Your task to perform on an android device: open the mobile data screen to see how much data has been used Image 0: 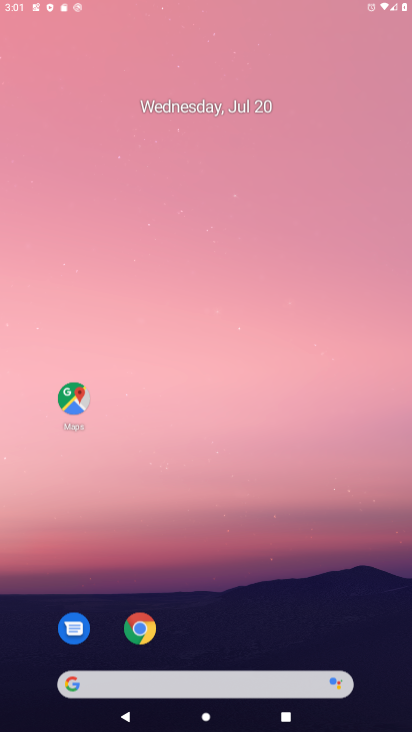
Step 0: press home button
Your task to perform on an android device: open the mobile data screen to see how much data has been used Image 1: 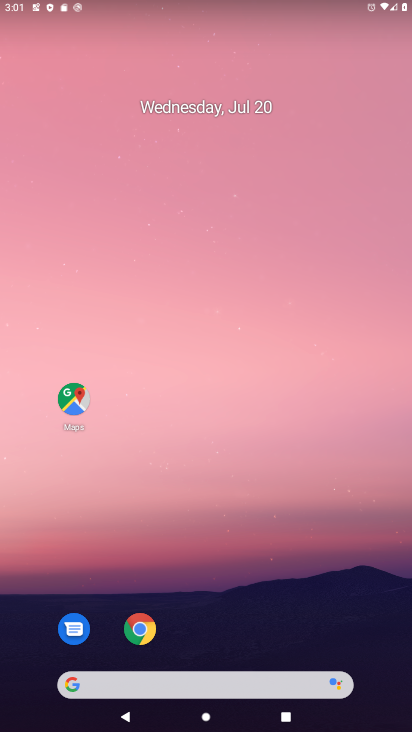
Step 1: drag from (210, 331) to (197, 66)
Your task to perform on an android device: open the mobile data screen to see how much data has been used Image 2: 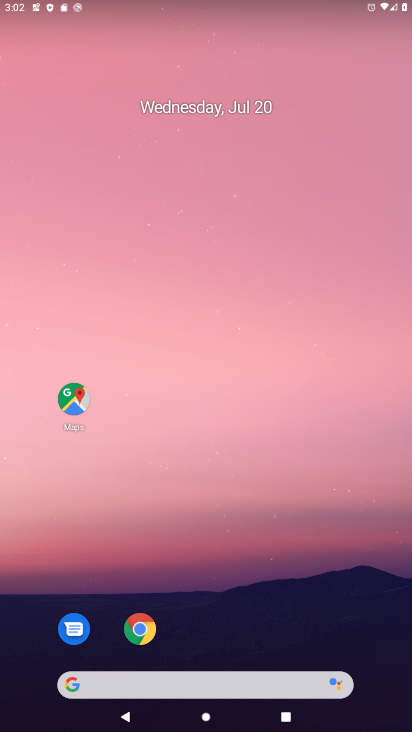
Step 2: drag from (235, 643) to (264, 52)
Your task to perform on an android device: open the mobile data screen to see how much data has been used Image 3: 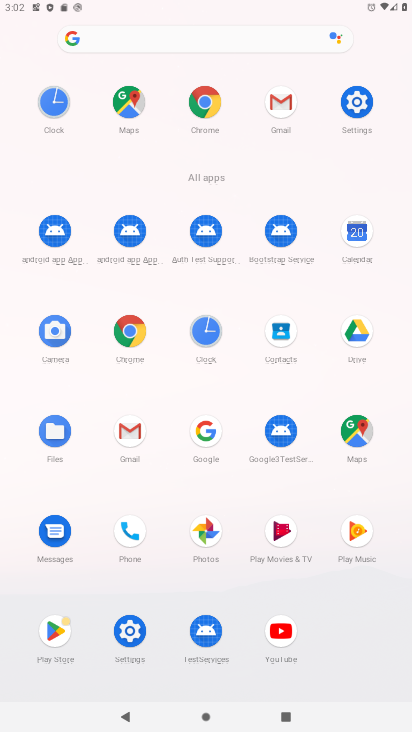
Step 3: click (354, 97)
Your task to perform on an android device: open the mobile data screen to see how much data has been used Image 4: 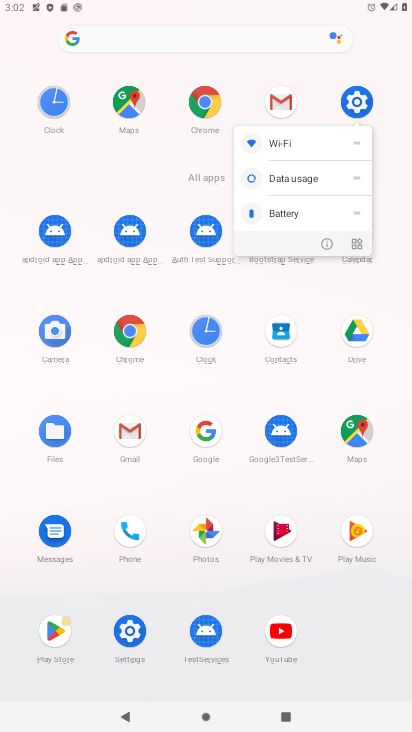
Step 4: click (360, 97)
Your task to perform on an android device: open the mobile data screen to see how much data has been used Image 5: 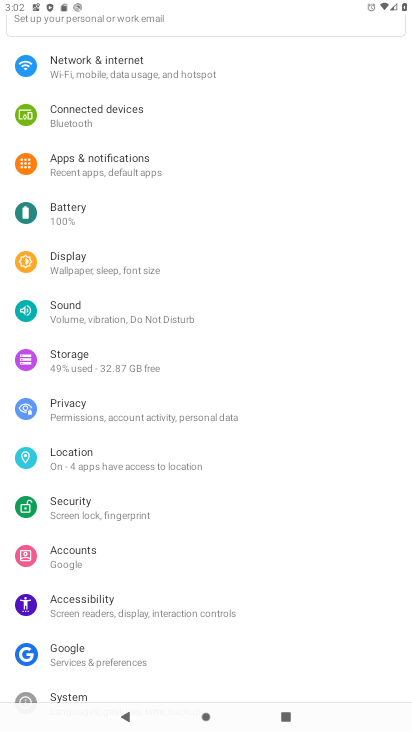
Step 5: click (144, 69)
Your task to perform on an android device: open the mobile data screen to see how much data has been used Image 6: 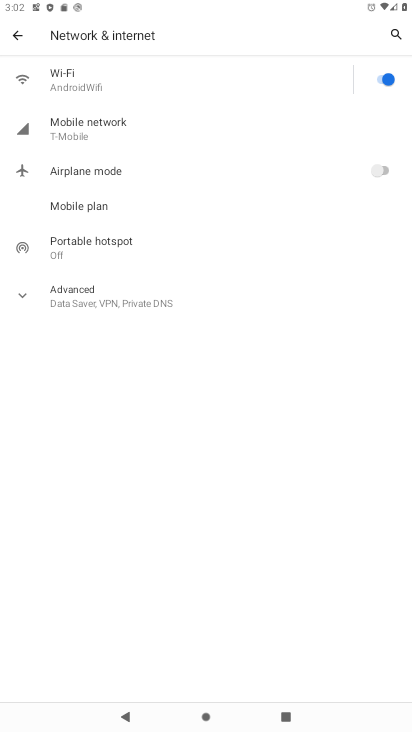
Step 6: click (101, 129)
Your task to perform on an android device: open the mobile data screen to see how much data has been used Image 7: 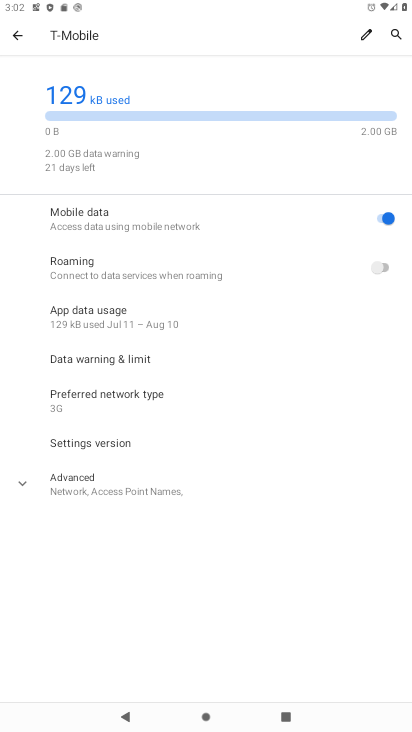
Step 7: click (113, 302)
Your task to perform on an android device: open the mobile data screen to see how much data has been used Image 8: 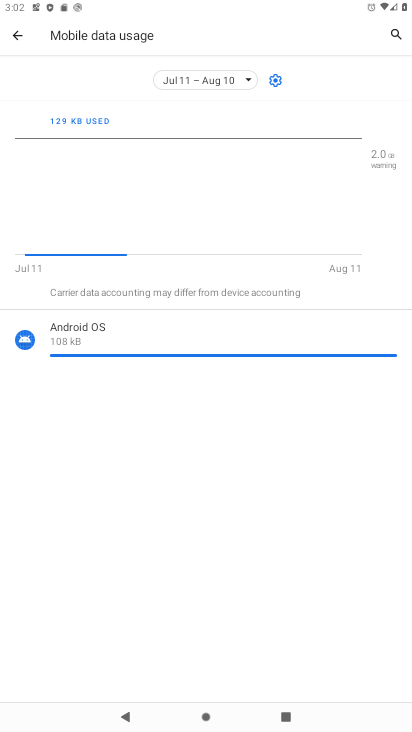
Step 8: task complete